Your task to perform on an android device: open app "Lyft - Rideshare, Bikes, Scooters & Transit" (install if not already installed) and go to login screen Image 0: 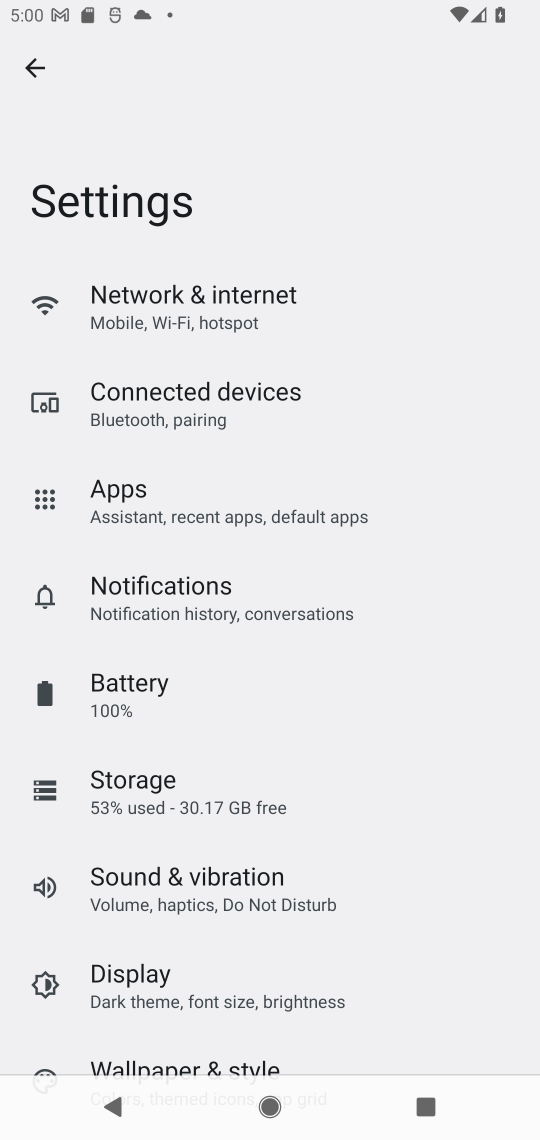
Step 0: press home button
Your task to perform on an android device: open app "Lyft - Rideshare, Bikes, Scooters & Transit" (install if not already installed) and go to login screen Image 1: 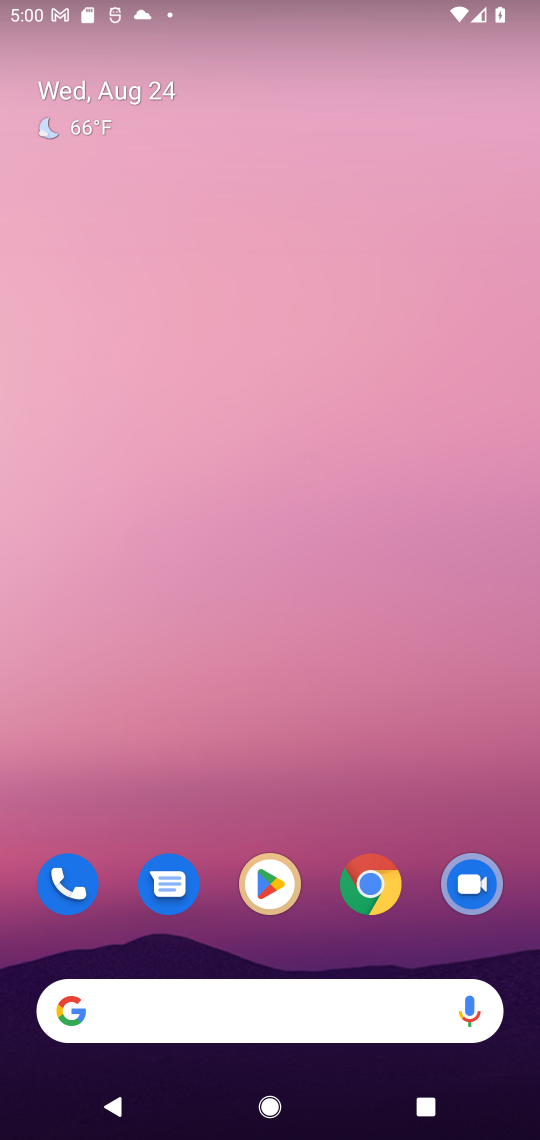
Step 1: click (267, 896)
Your task to perform on an android device: open app "Lyft - Rideshare, Bikes, Scooters & Transit" (install if not already installed) and go to login screen Image 2: 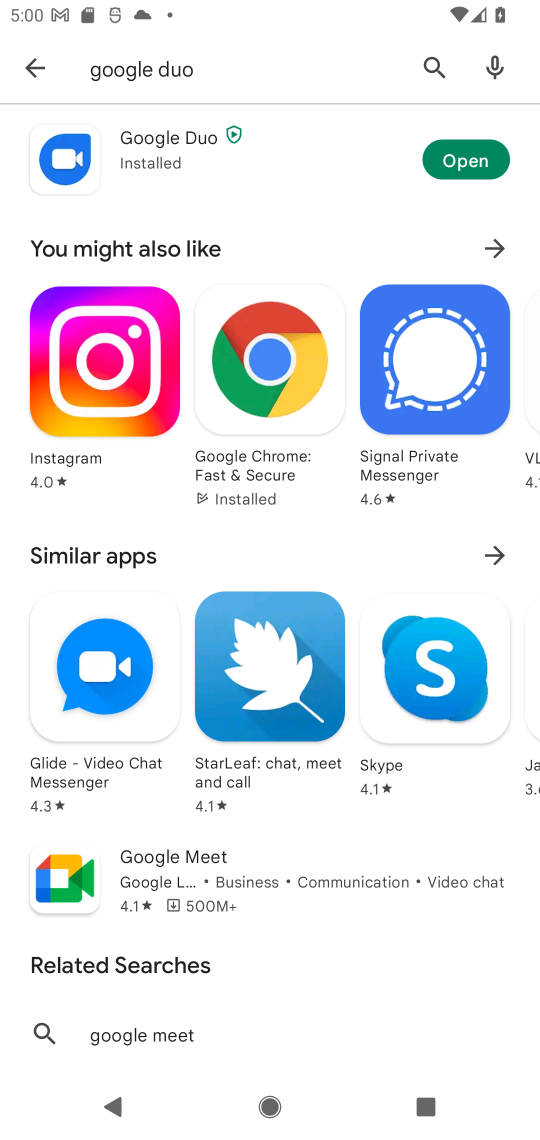
Step 2: click (24, 73)
Your task to perform on an android device: open app "Lyft - Rideshare, Bikes, Scooters & Transit" (install if not already installed) and go to login screen Image 3: 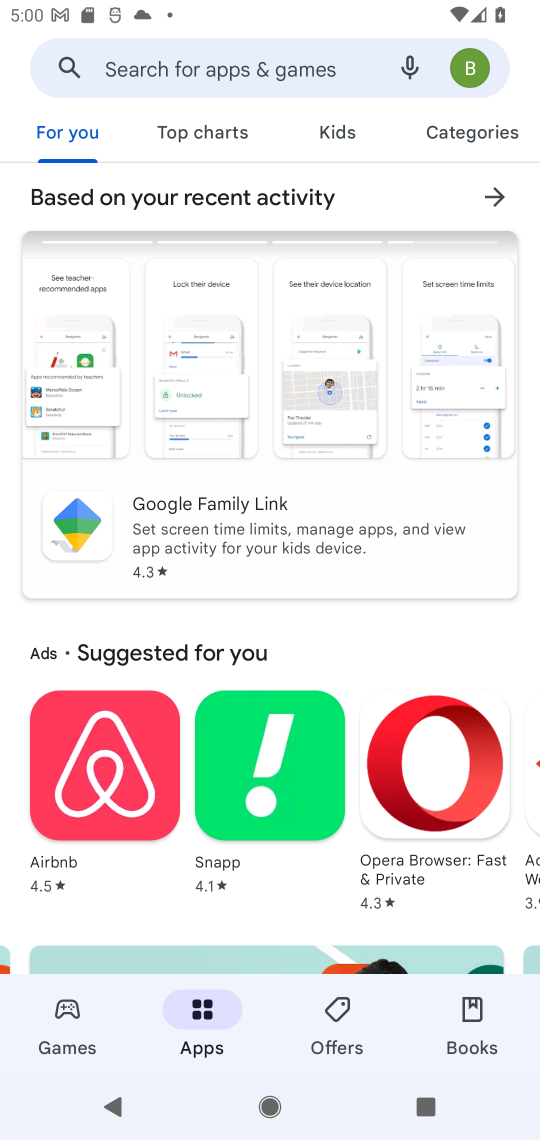
Step 3: click (103, 73)
Your task to perform on an android device: open app "Lyft - Rideshare, Bikes, Scooters & Transit" (install if not already installed) and go to login screen Image 4: 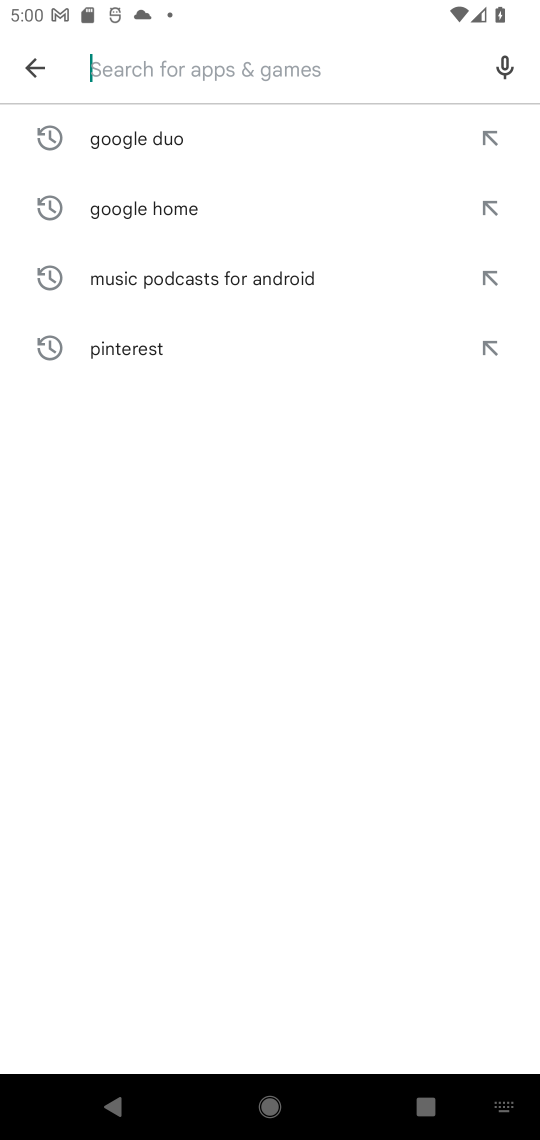
Step 4: type "Lyft"
Your task to perform on an android device: open app "Lyft - Rideshare, Bikes, Scooters & Transit" (install if not already installed) and go to login screen Image 5: 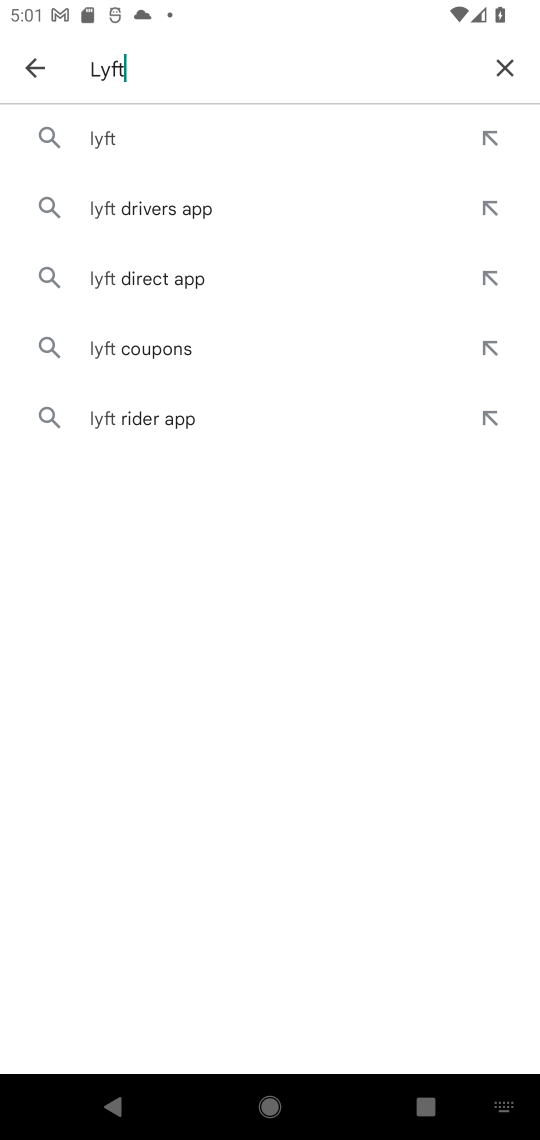
Step 5: click (98, 128)
Your task to perform on an android device: open app "Lyft - Rideshare, Bikes, Scooters & Transit" (install if not already installed) and go to login screen Image 6: 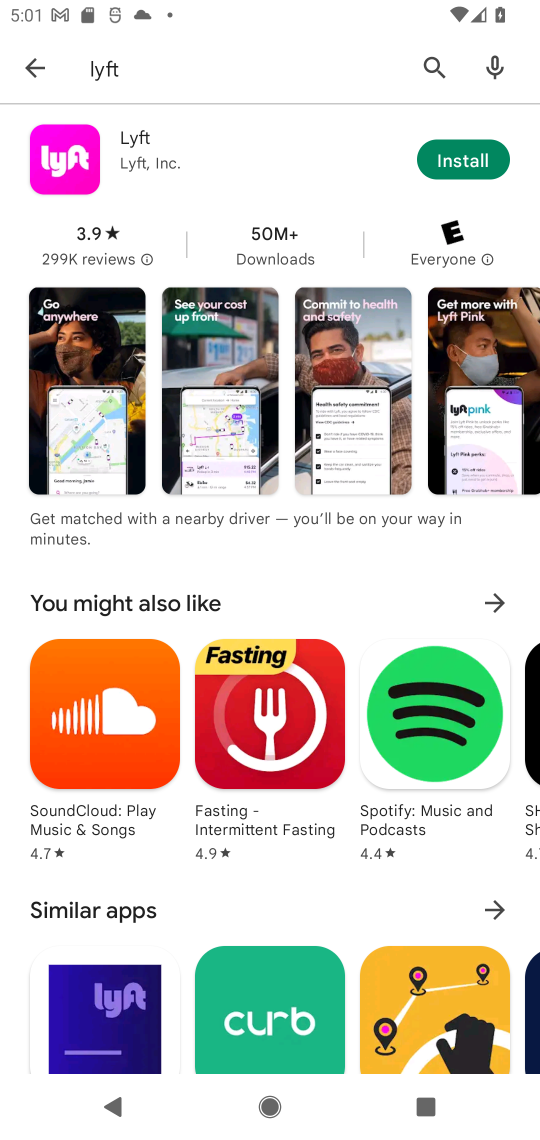
Step 6: click (452, 155)
Your task to perform on an android device: open app "Lyft - Rideshare, Bikes, Scooters & Transit" (install if not already installed) and go to login screen Image 7: 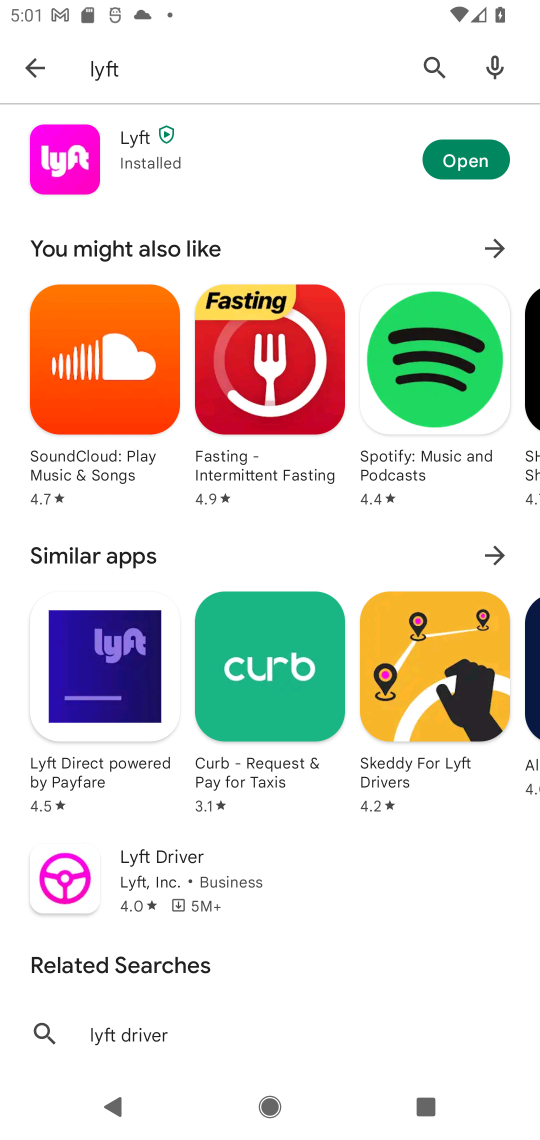
Step 7: click (450, 170)
Your task to perform on an android device: open app "Lyft - Rideshare, Bikes, Scooters & Transit" (install if not already installed) and go to login screen Image 8: 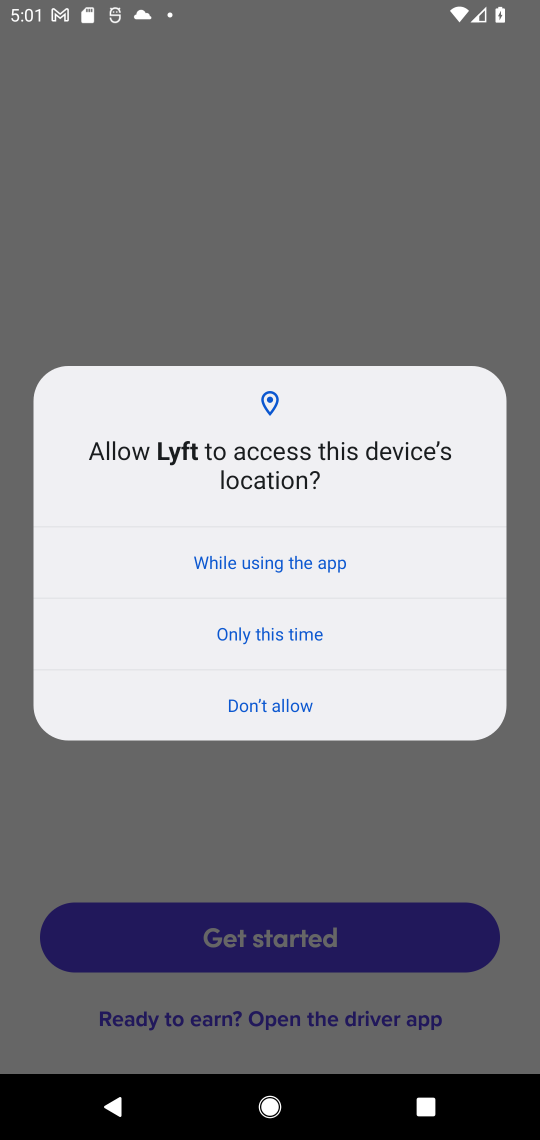
Step 8: task complete